Your task to perform on an android device: manage bookmarks in the chrome app Image 0: 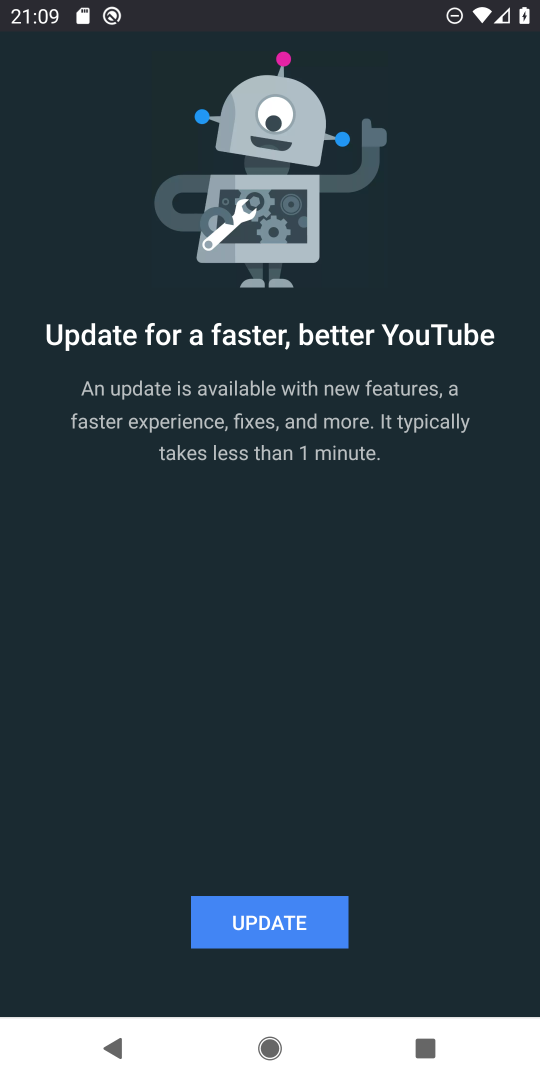
Step 0: press home button
Your task to perform on an android device: manage bookmarks in the chrome app Image 1: 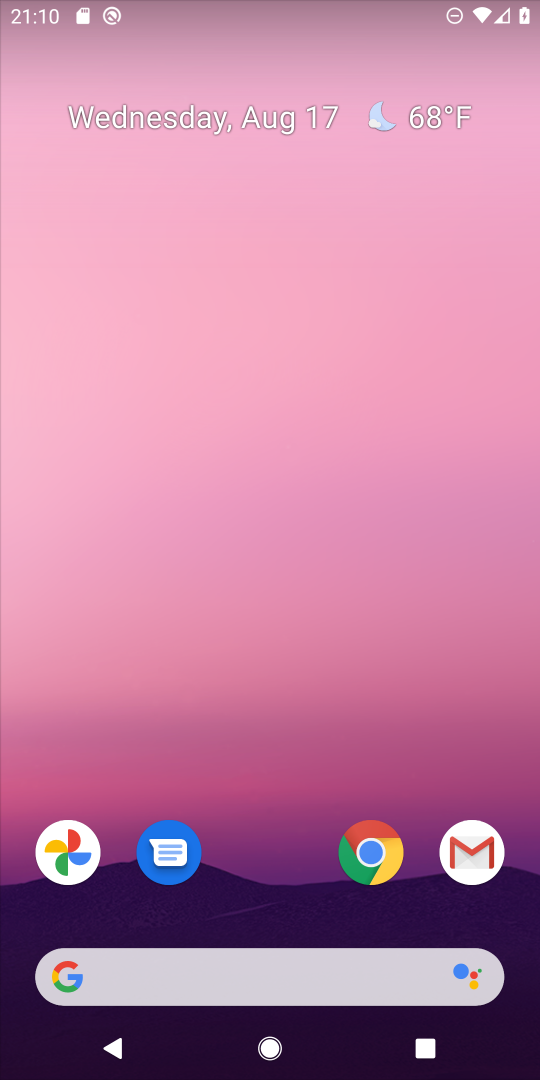
Step 1: click (372, 853)
Your task to perform on an android device: manage bookmarks in the chrome app Image 2: 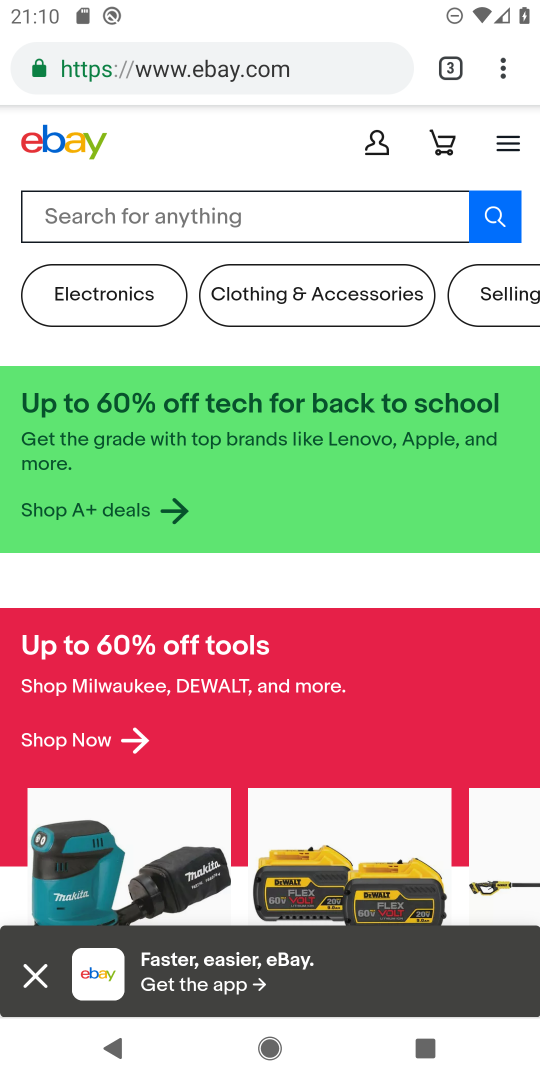
Step 2: click (499, 65)
Your task to perform on an android device: manage bookmarks in the chrome app Image 3: 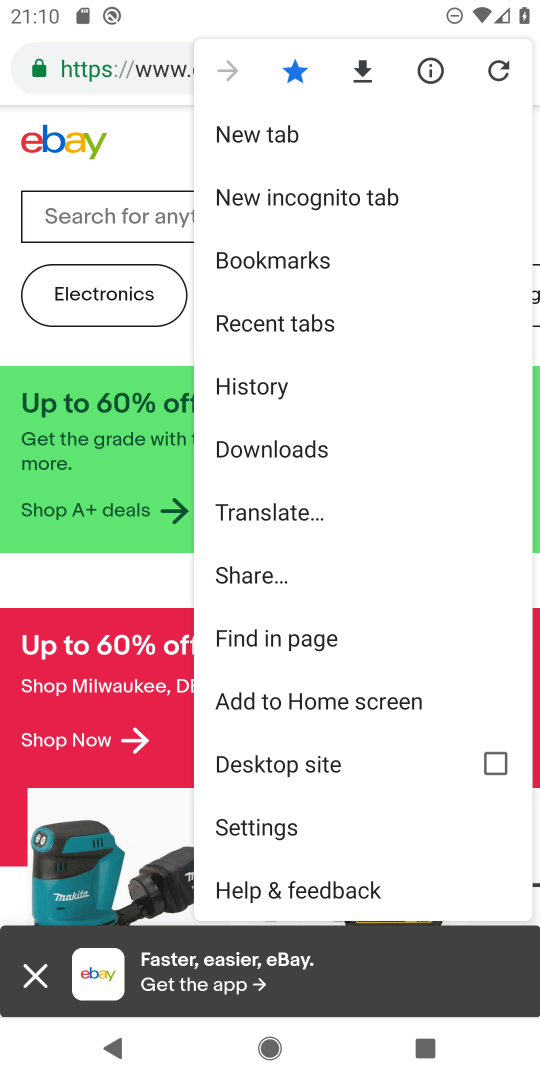
Step 3: click (273, 255)
Your task to perform on an android device: manage bookmarks in the chrome app Image 4: 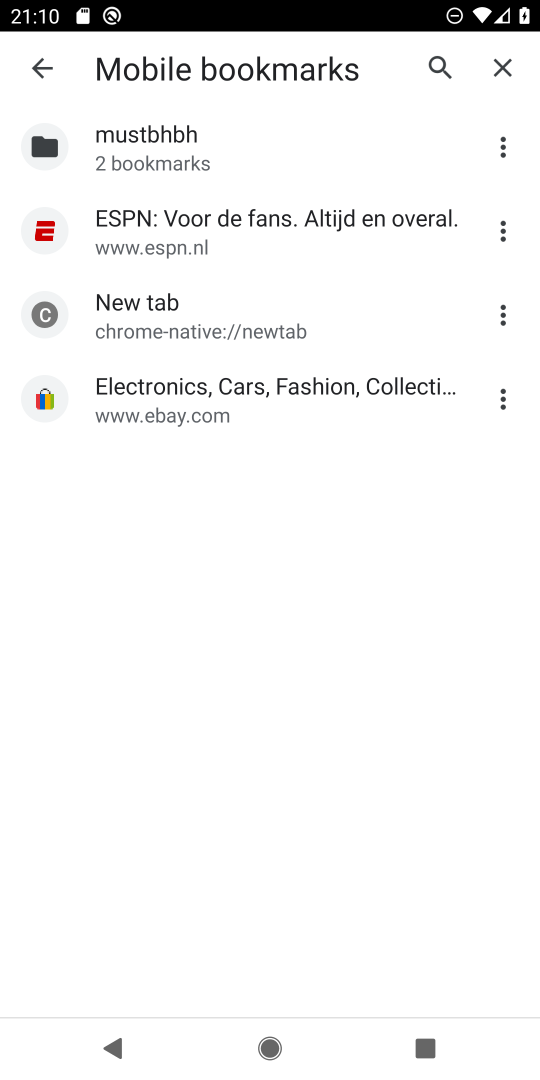
Step 4: click (506, 140)
Your task to perform on an android device: manage bookmarks in the chrome app Image 5: 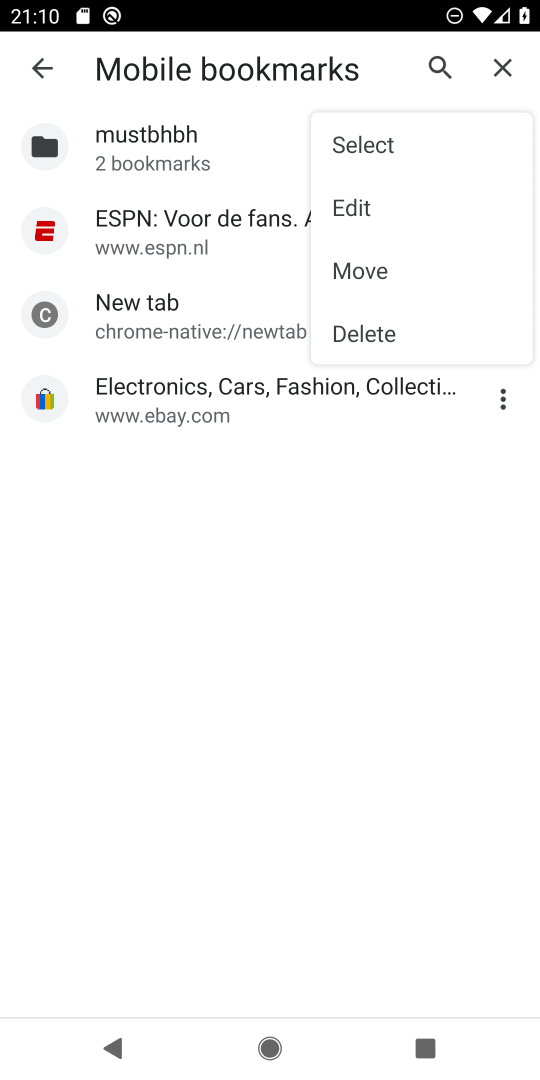
Step 5: click (362, 197)
Your task to perform on an android device: manage bookmarks in the chrome app Image 6: 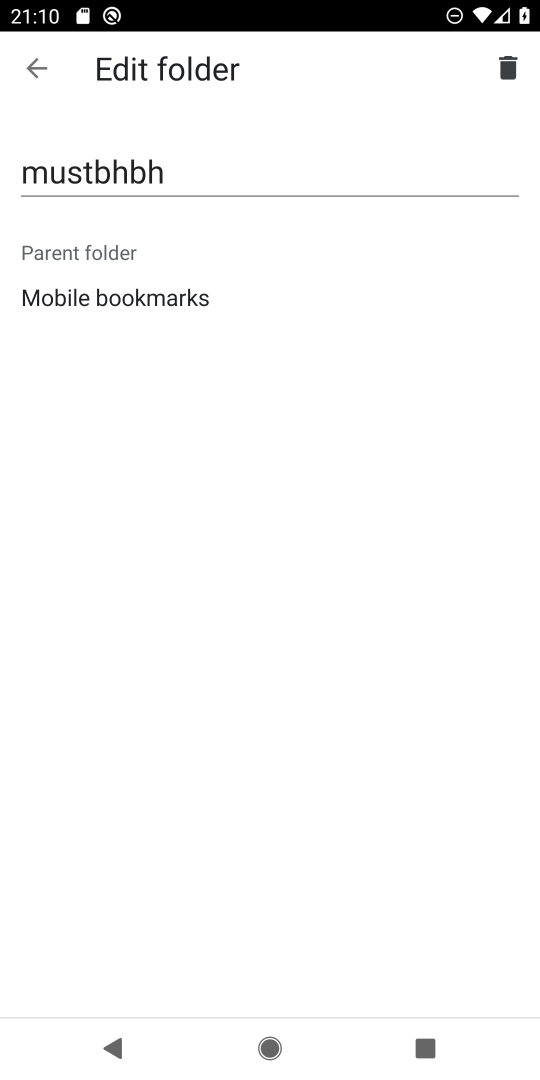
Step 6: task complete